Your task to perform on an android device: turn on javascript in the chrome app Image 0: 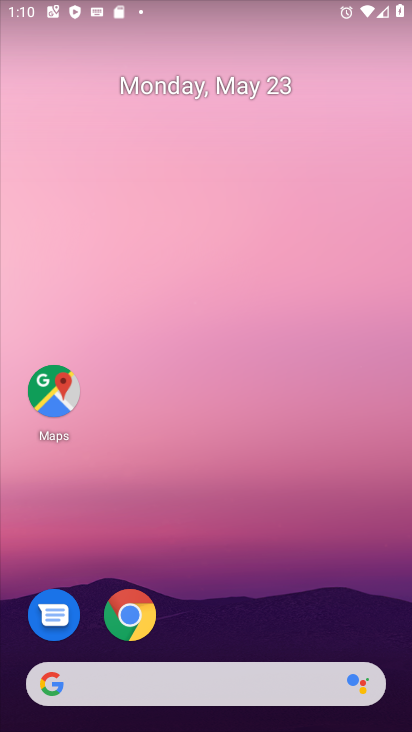
Step 0: click (130, 619)
Your task to perform on an android device: turn on javascript in the chrome app Image 1: 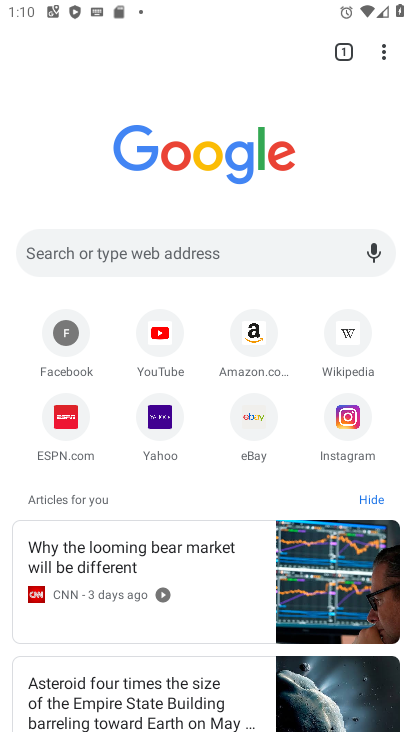
Step 1: click (385, 56)
Your task to perform on an android device: turn on javascript in the chrome app Image 2: 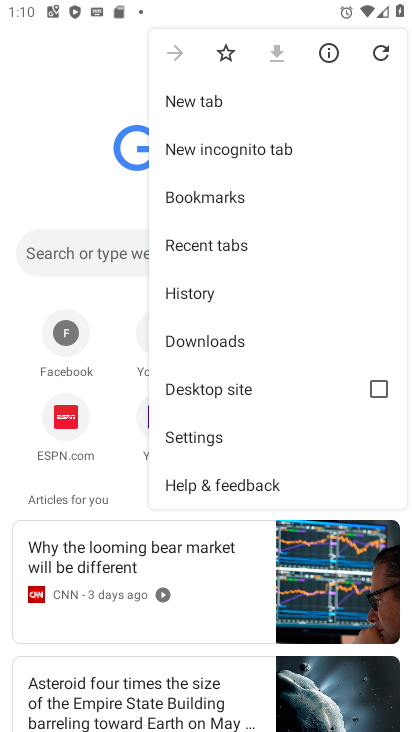
Step 2: click (191, 435)
Your task to perform on an android device: turn on javascript in the chrome app Image 3: 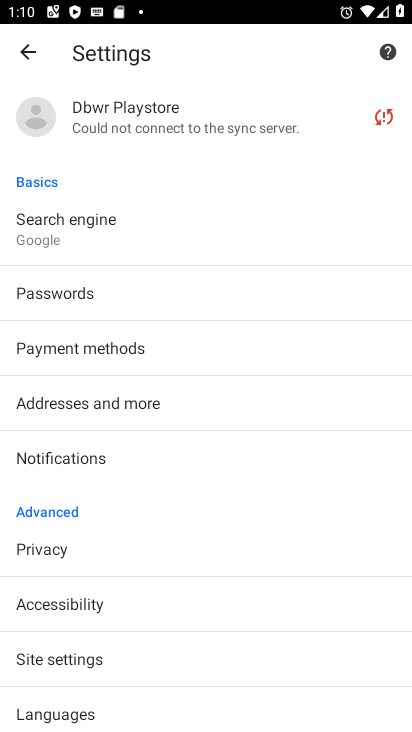
Step 3: click (61, 657)
Your task to perform on an android device: turn on javascript in the chrome app Image 4: 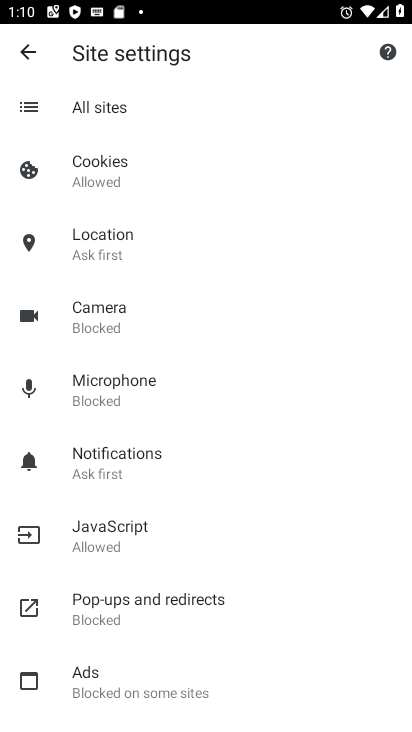
Step 4: click (127, 524)
Your task to perform on an android device: turn on javascript in the chrome app Image 5: 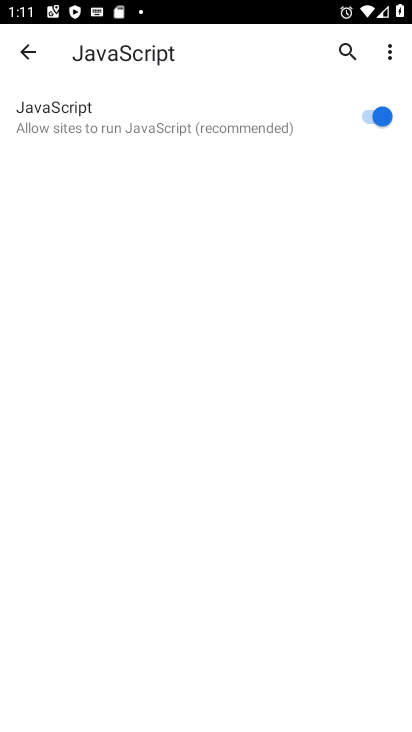
Step 5: task complete